Your task to perform on an android device: toggle wifi Image 0: 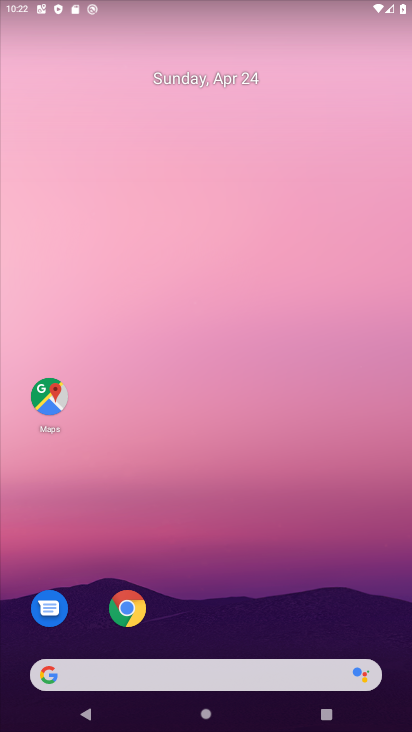
Step 0: drag from (211, 692) to (250, 118)
Your task to perform on an android device: toggle wifi Image 1: 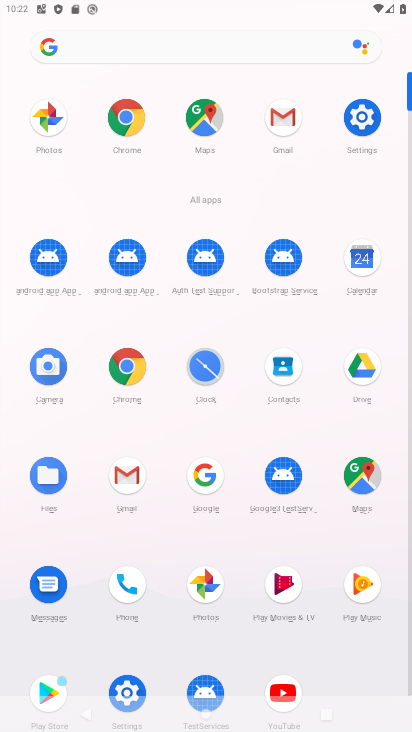
Step 1: click (356, 108)
Your task to perform on an android device: toggle wifi Image 2: 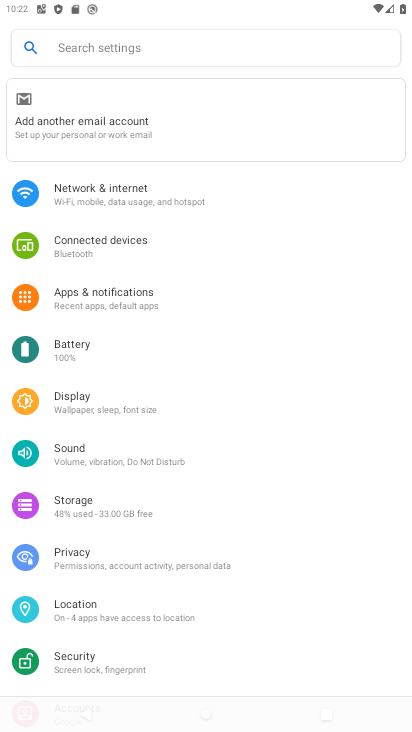
Step 2: click (127, 200)
Your task to perform on an android device: toggle wifi Image 3: 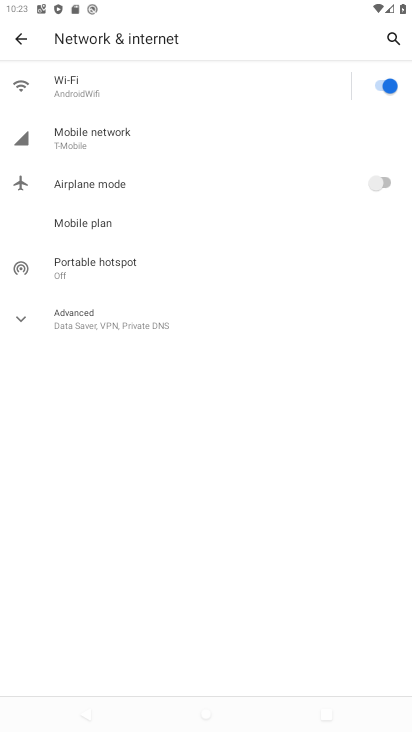
Step 3: click (136, 99)
Your task to perform on an android device: toggle wifi Image 4: 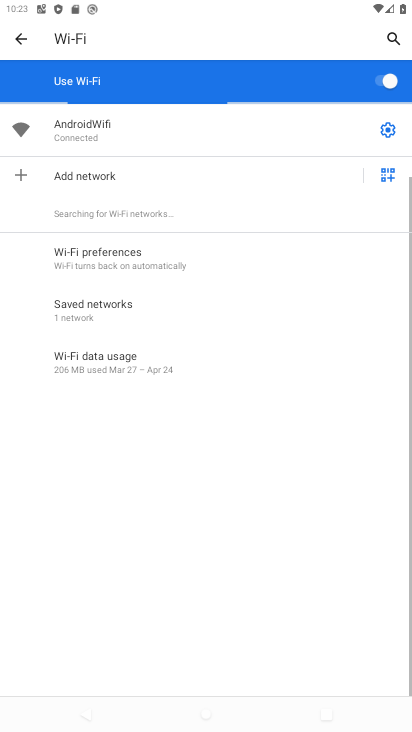
Step 4: task complete